Your task to perform on an android device: Show me productivity apps on the Play Store Image 0: 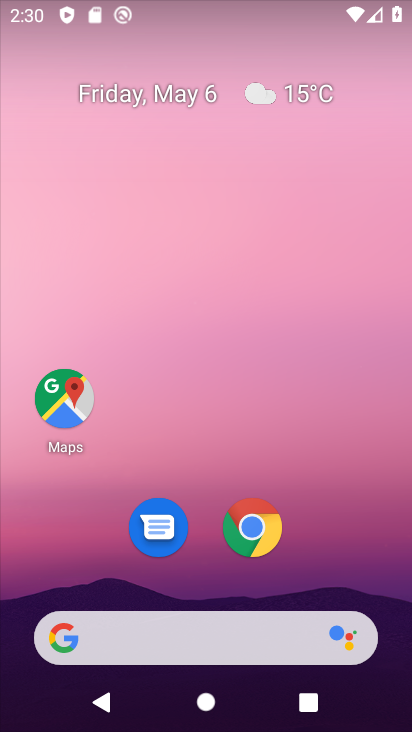
Step 0: drag from (135, 490) to (191, 233)
Your task to perform on an android device: Show me productivity apps on the Play Store Image 1: 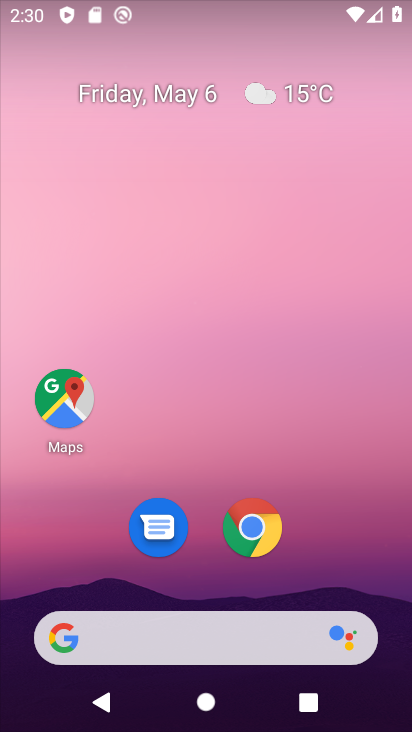
Step 1: drag from (176, 600) to (274, 165)
Your task to perform on an android device: Show me productivity apps on the Play Store Image 2: 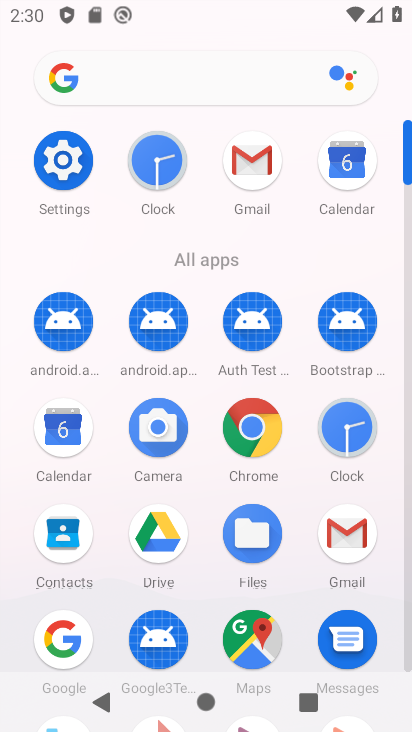
Step 2: drag from (211, 589) to (201, 325)
Your task to perform on an android device: Show me productivity apps on the Play Store Image 3: 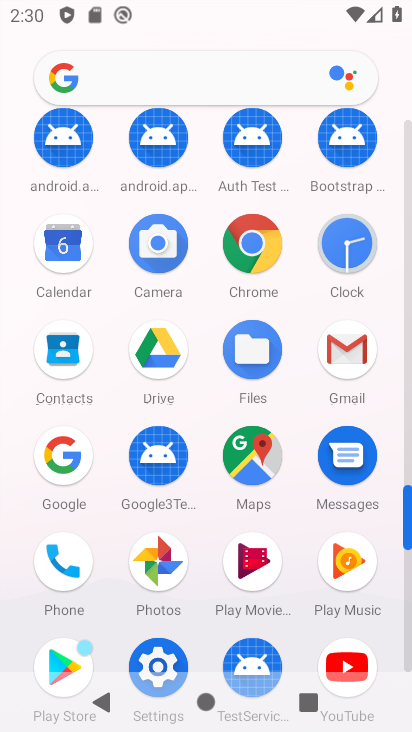
Step 3: click (48, 651)
Your task to perform on an android device: Show me productivity apps on the Play Store Image 4: 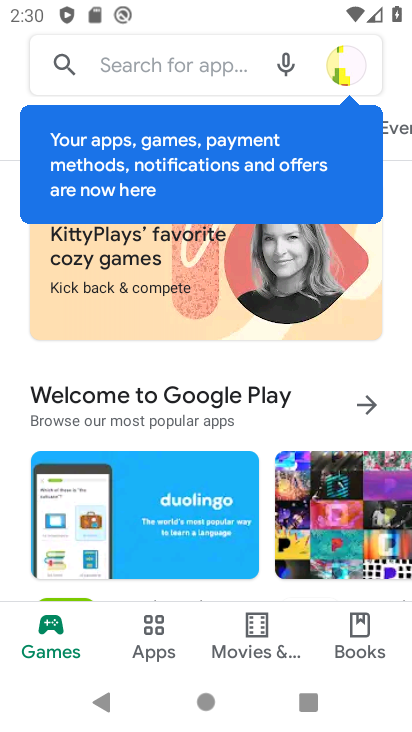
Step 4: click (145, 634)
Your task to perform on an android device: Show me productivity apps on the Play Store Image 5: 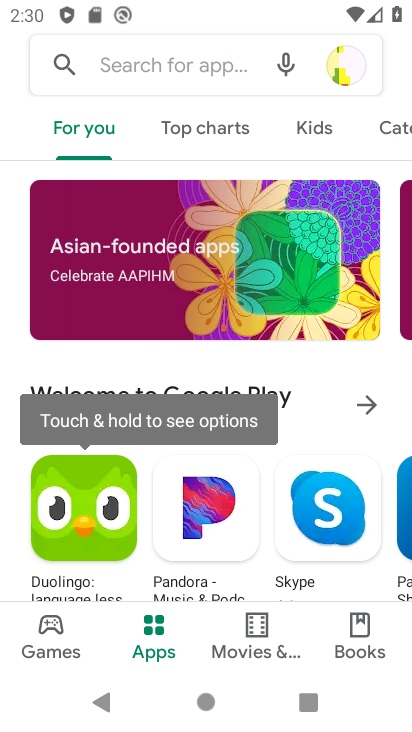
Step 5: click (384, 128)
Your task to perform on an android device: Show me productivity apps on the Play Store Image 6: 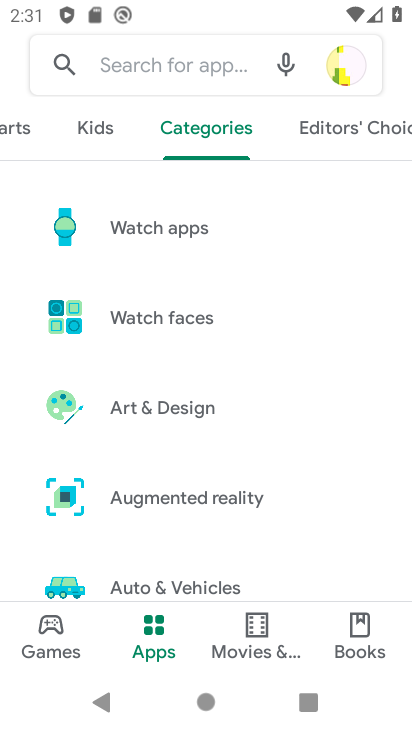
Step 6: drag from (279, 452) to (285, 181)
Your task to perform on an android device: Show me productivity apps on the Play Store Image 7: 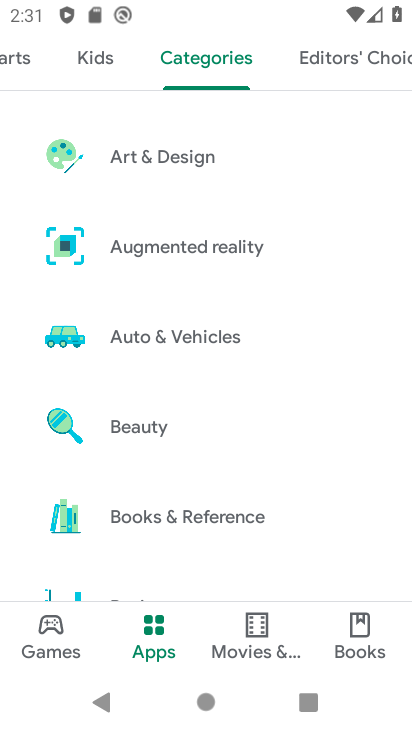
Step 7: drag from (245, 512) to (236, 264)
Your task to perform on an android device: Show me productivity apps on the Play Store Image 8: 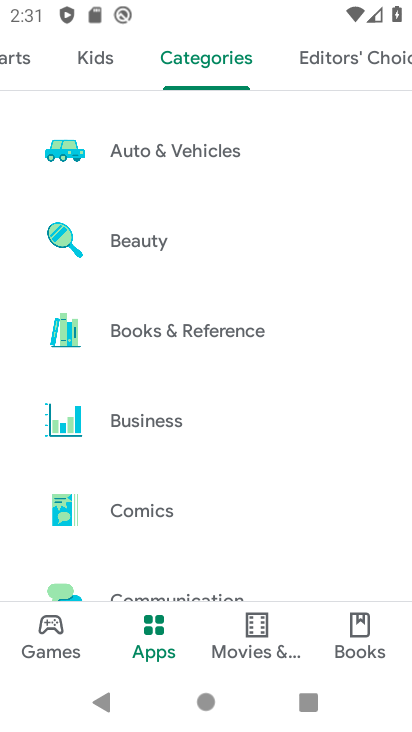
Step 8: drag from (224, 530) to (230, 235)
Your task to perform on an android device: Show me productivity apps on the Play Store Image 9: 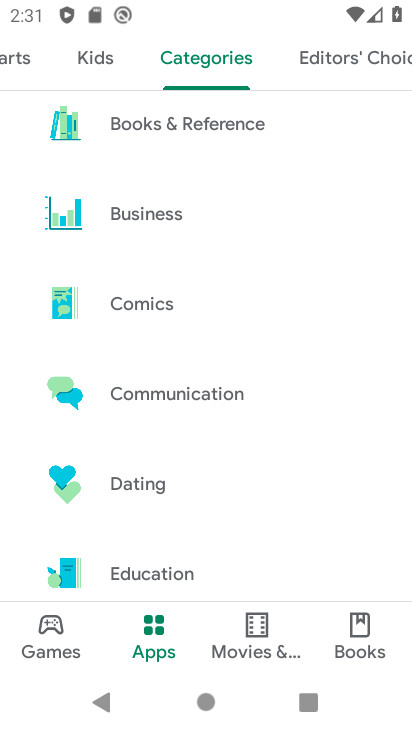
Step 9: drag from (237, 534) to (237, 291)
Your task to perform on an android device: Show me productivity apps on the Play Store Image 10: 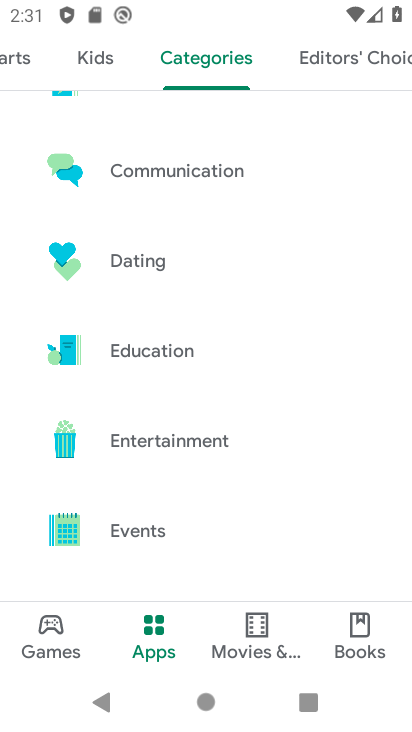
Step 10: drag from (210, 504) to (223, 190)
Your task to perform on an android device: Show me productivity apps on the Play Store Image 11: 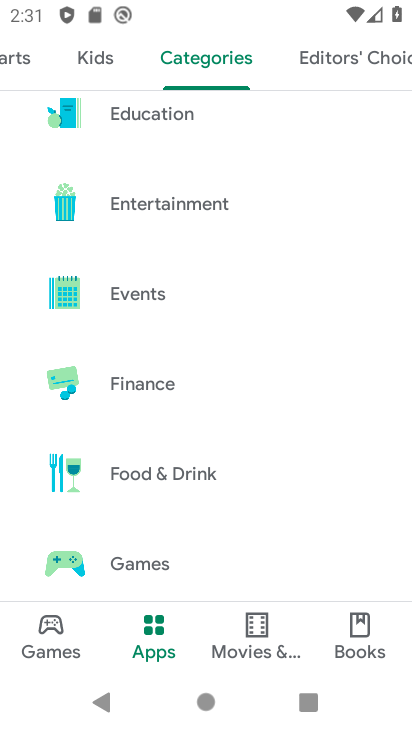
Step 11: drag from (237, 529) to (220, 194)
Your task to perform on an android device: Show me productivity apps on the Play Store Image 12: 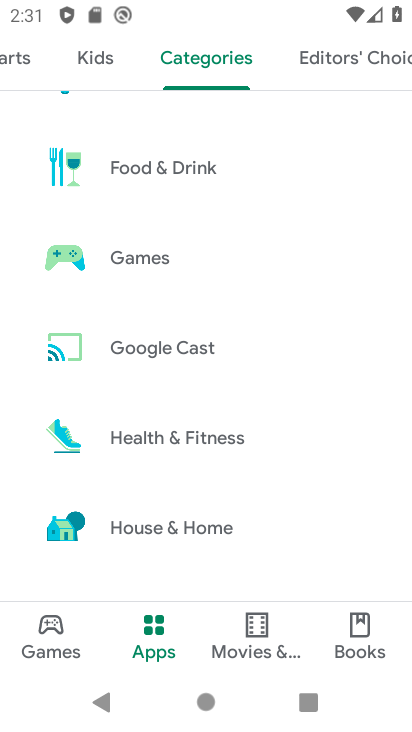
Step 12: drag from (243, 549) to (221, 248)
Your task to perform on an android device: Show me productivity apps on the Play Store Image 13: 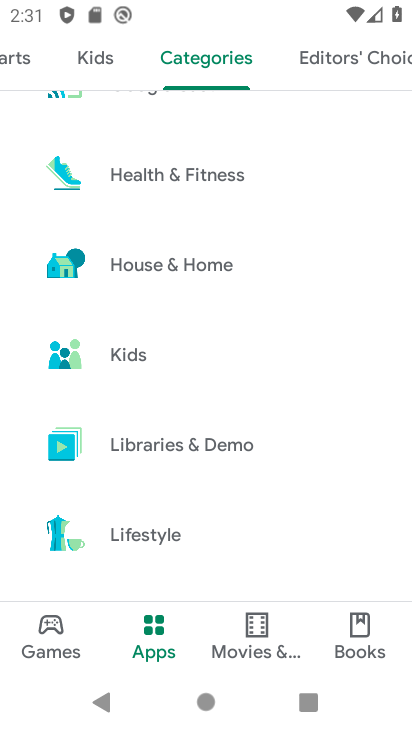
Step 13: drag from (230, 456) to (223, 154)
Your task to perform on an android device: Show me productivity apps on the Play Store Image 14: 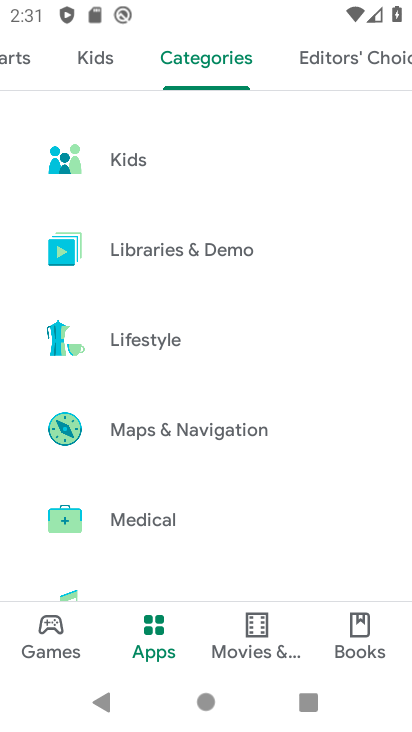
Step 14: drag from (233, 539) to (234, 147)
Your task to perform on an android device: Show me productivity apps on the Play Store Image 15: 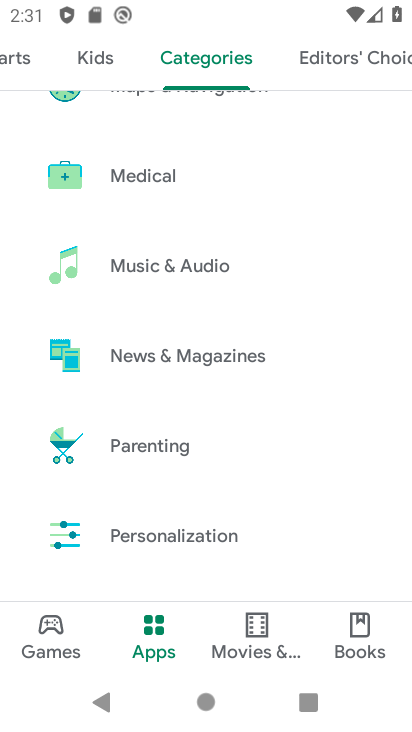
Step 15: drag from (263, 545) to (266, 273)
Your task to perform on an android device: Show me productivity apps on the Play Store Image 16: 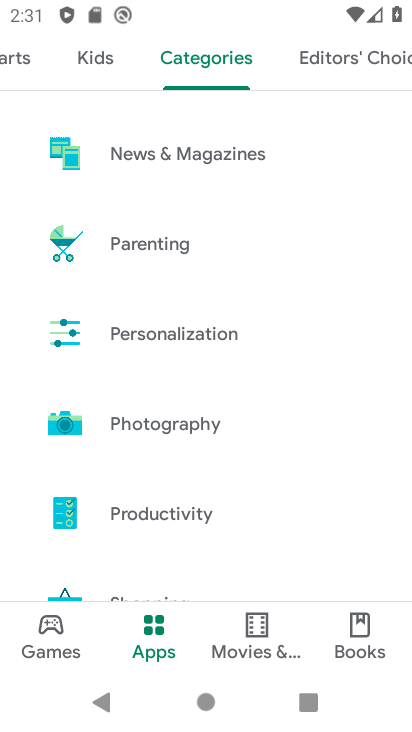
Step 16: click (170, 516)
Your task to perform on an android device: Show me productivity apps on the Play Store Image 17: 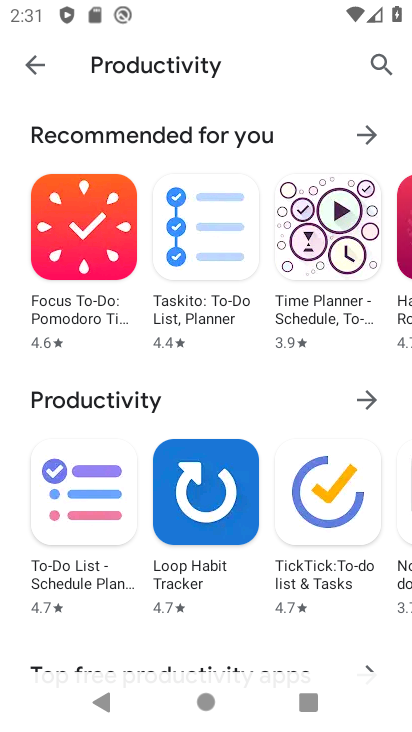
Step 17: task complete